Your task to perform on an android device: When is my next meeting? Image 0: 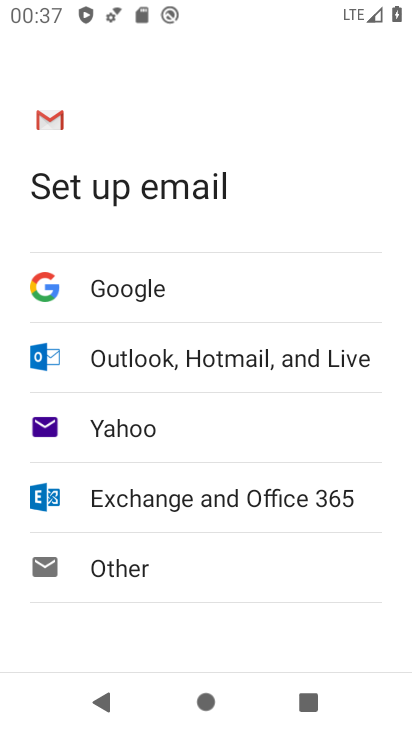
Step 0: press home button
Your task to perform on an android device: When is my next meeting? Image 1: 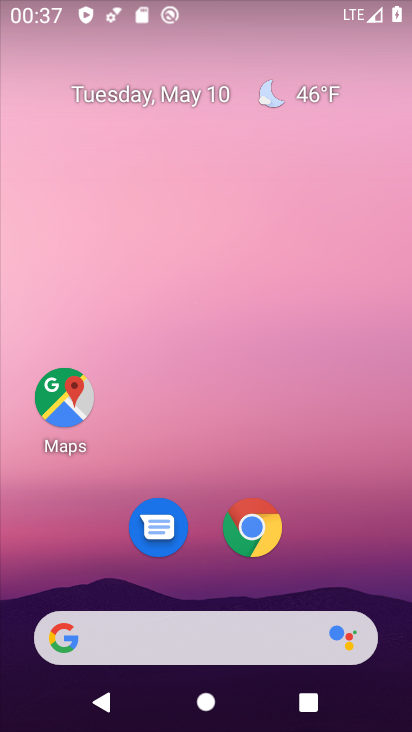
Step 1: drag from (335, 561) to (132, 172)
Your task to perform on an android device: When is my next meeting? Image 2: 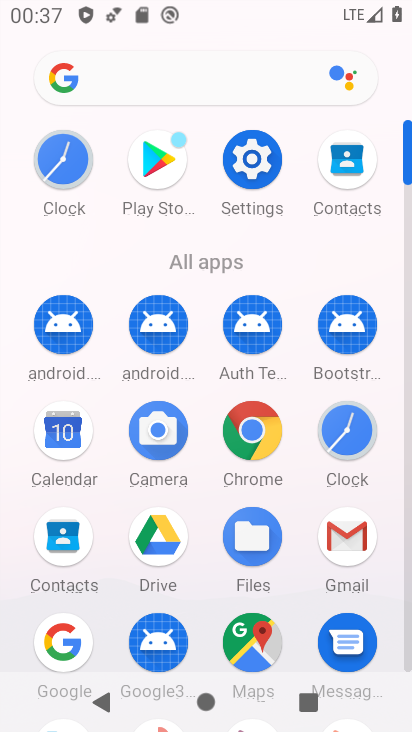
Step 2: click (71, 446)
Your task to perform on an android device: When is my next meeting? Image 3: 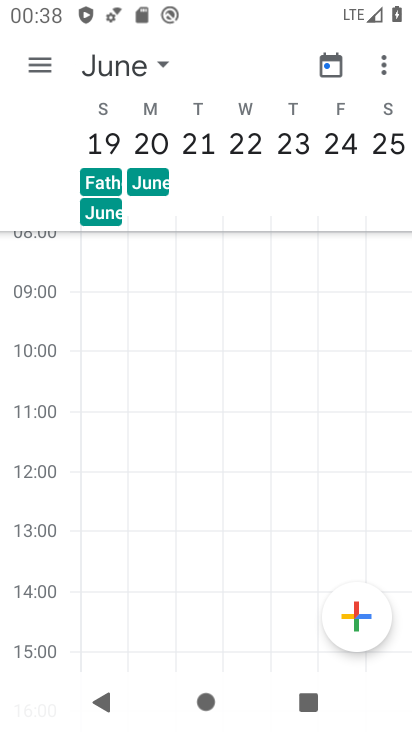
Step 3: click (130, 71)
Your task to perform on an android device: When is my next meeting? Image 4: 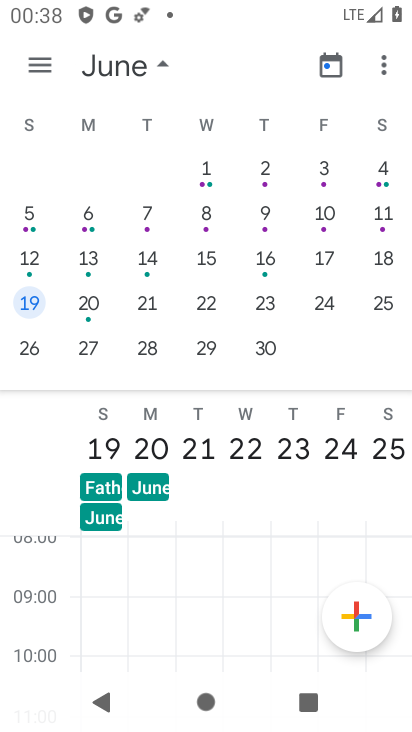
Step 4: drag from (51, 278) to (384, 285)
Your task to perform on an android device: When is my next meeting? Image 5: 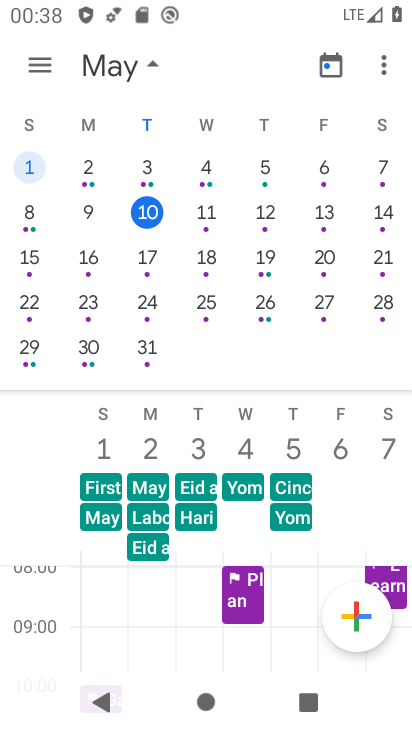
Step 5: click (206, 214)
Your task to perform on an android device: When is my next meeting? Image 6: 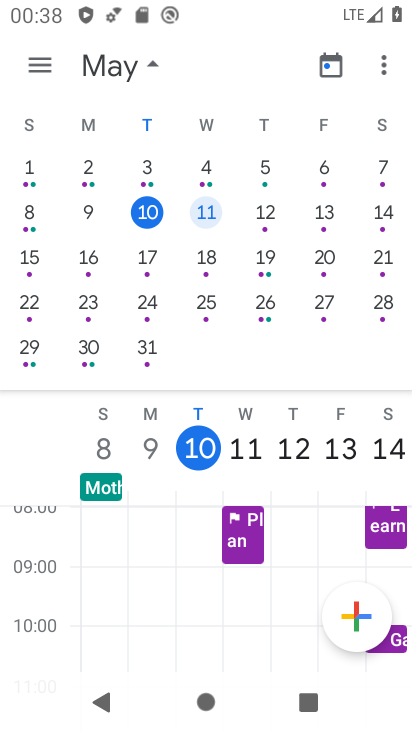
Step 6: drag from (242, 532) to (229, 609)
Your task to perform on an android device: When is my next meeting? Image 7: 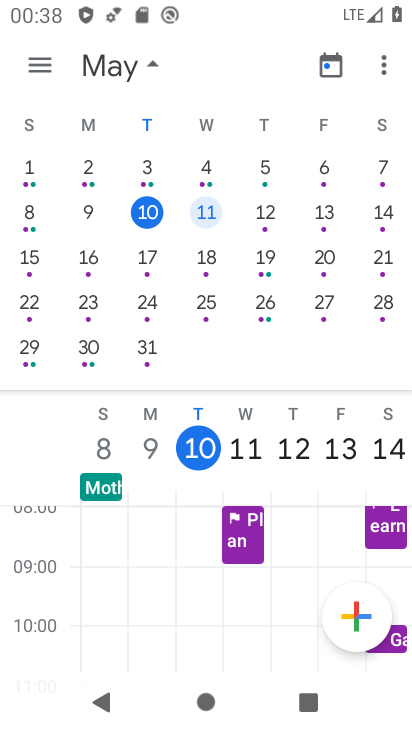
Step 7: click (45, 61)
Your task to perform on an android device: When is my next meeting? Image 8: 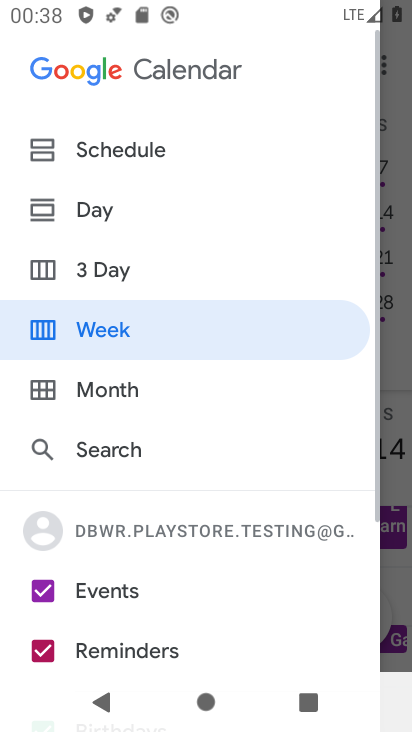
Step 8: click (108, 146)
Your task to perform on an android device: When is my next meeting? Image 9: 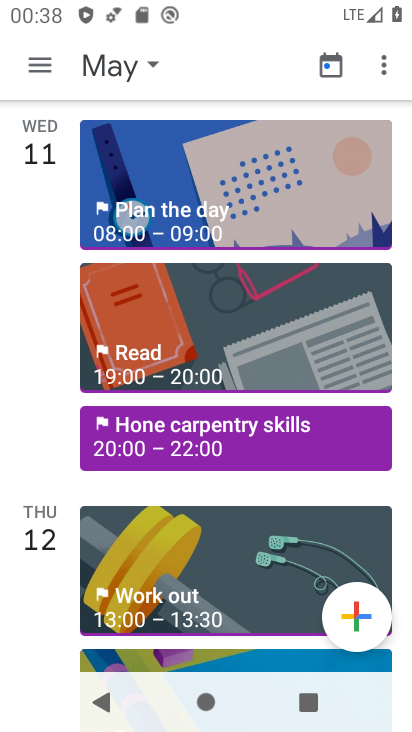
Step 9: task complete